Your task to perform on an android device: stop showing notifications on the lock screen Image 0: 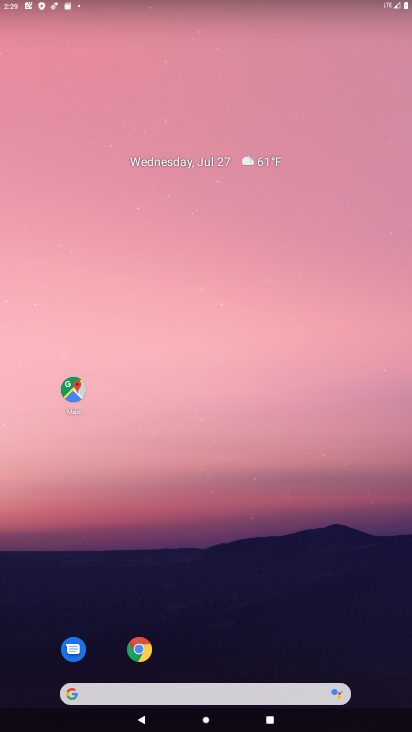
Step 0: drag from (165, 629) to (192, 114)
Your task to perform on an android device: stop showing notifications on the lock screen Image 1: 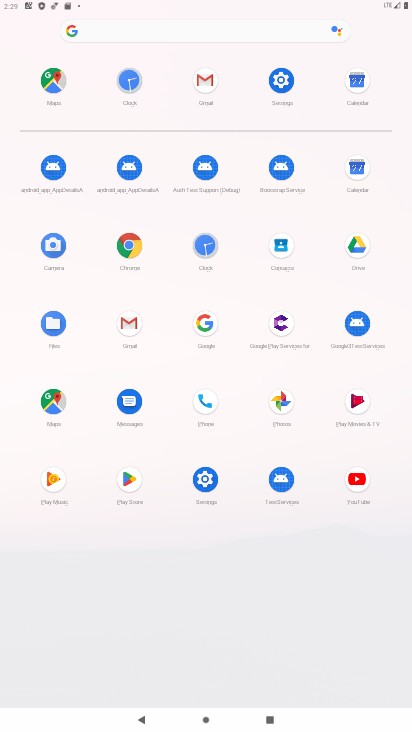
Step 1: click (202, 484)
Your task to perform on an android device: stop showing notifications on the lock screen Image 2: 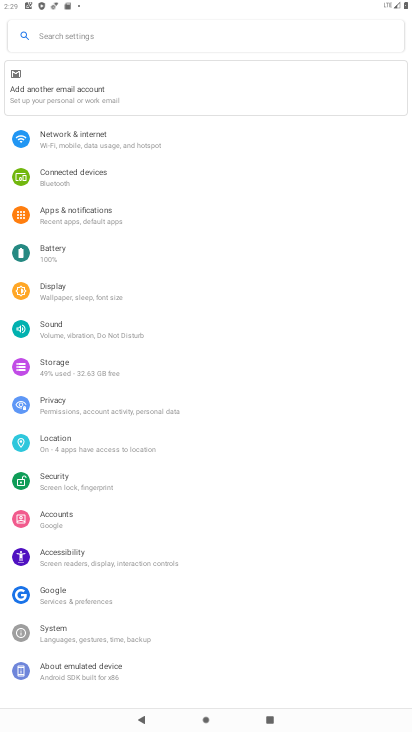
Step 2: click (68, 216)
Your task to perform on an android device: stop showing notifications on the lock screen Image 3: 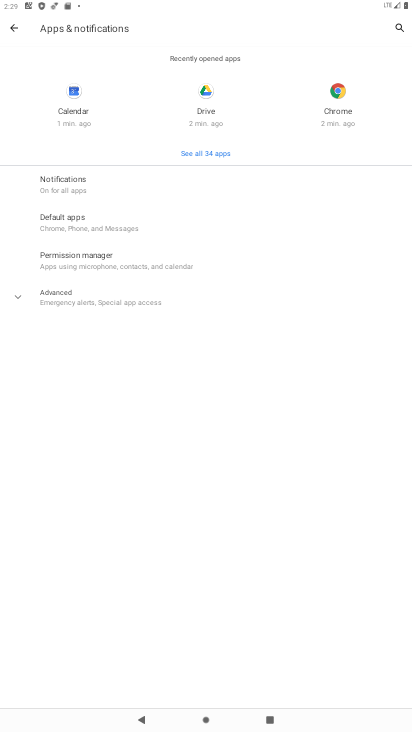
Step 3: click (68, 183)
Your task to perform on an android device: stop showing notifications on the lock screen Image 4: 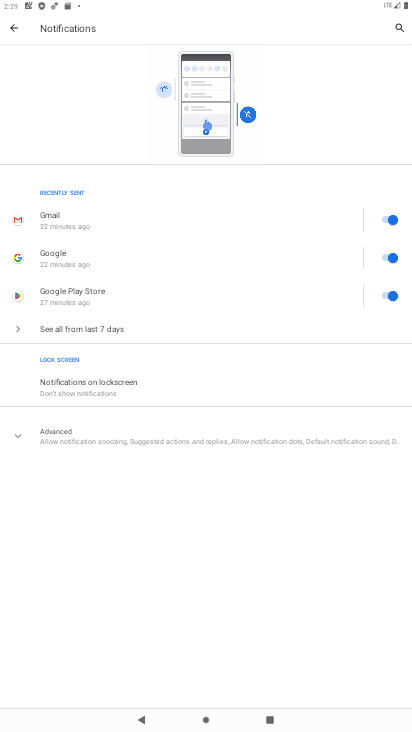
Step 4: click (95, 396)
Your task to perform on an android device: stop showing notifications on the lock screen Image 5: 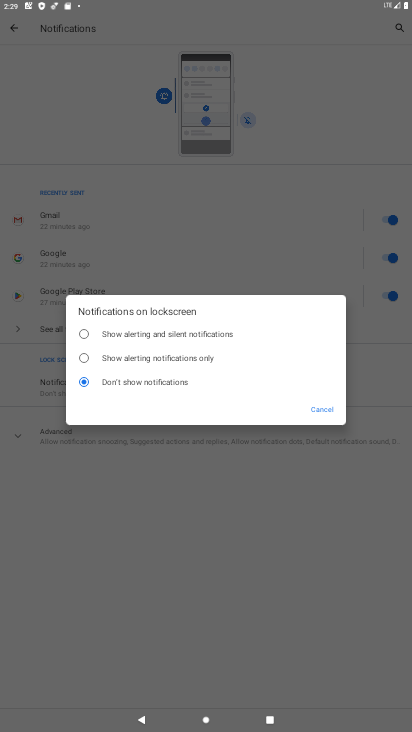
Step 5: task complete